Your task to perform on an android device: change the clock display to analog Image 0: 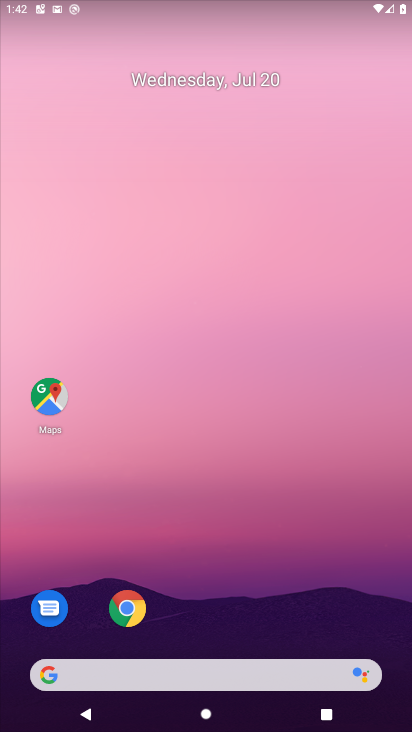
Step 0: drag from (235, 477) to (235, 299)
Your task to perform on an android device: change the clock display to analog Image 1: 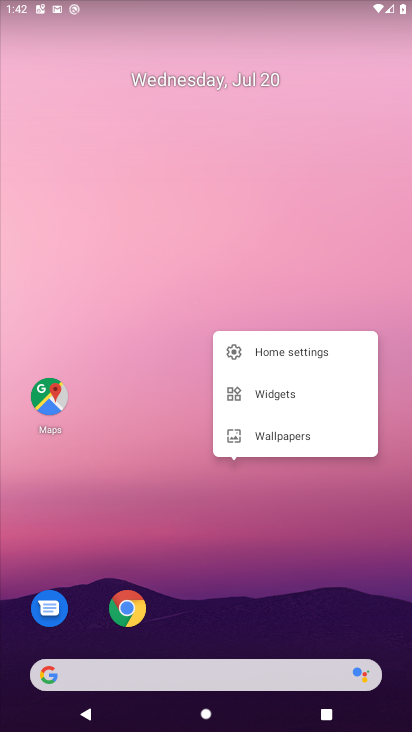
Step 1: click (170, 216)
Your task to perform on an android device: change the clock display to analog Image 2: 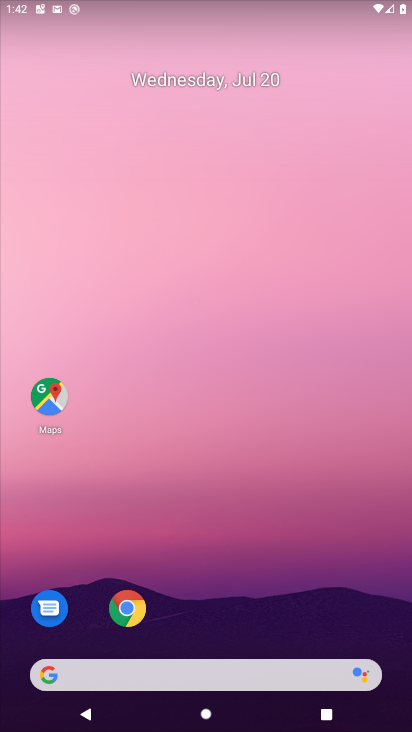
Step 2: drag from (223, 361) to (251, 125)
Your task to perform on an android device: change the clock display to analog Image 3: 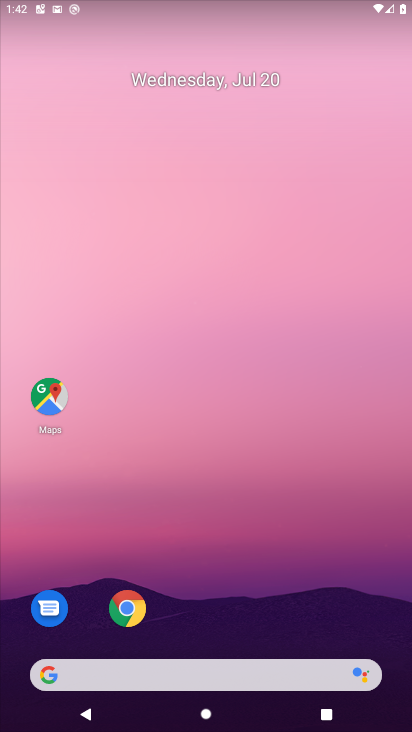
Step 3: drag from (234, 667) to (270, 90)
Your task to perform on an android device: change the clock display to analog Image 4: 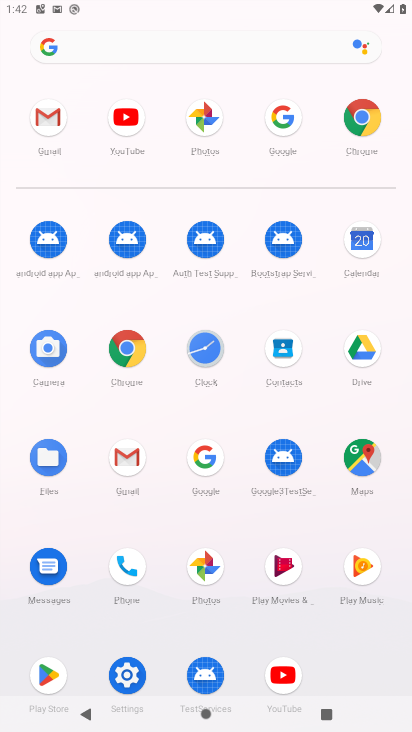
Step 4: click (211, 360)
Your task to perform on an android device: change the clock display to analog Image 5: 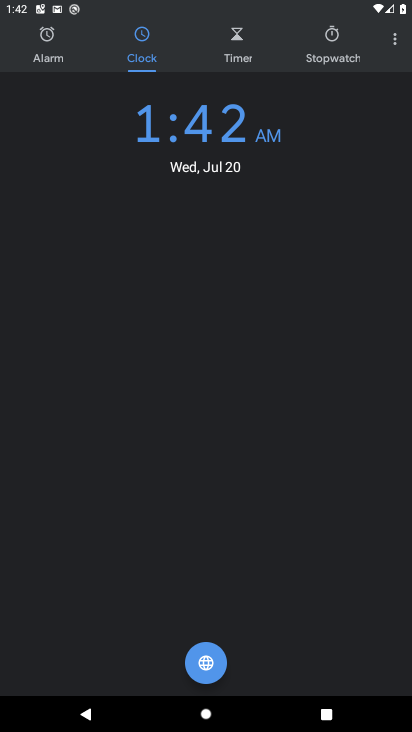
Step 5: click (394, 40)
Your task to perform on an android device: change the clock display to analog Image 6: 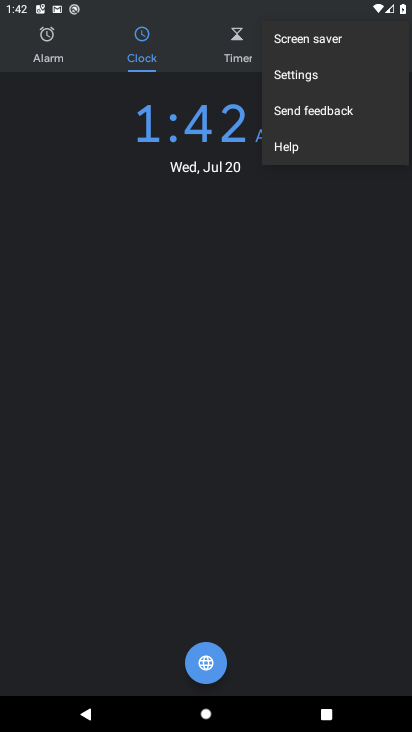
Step 6: click (319, 73)
Your task to perform on an android device: change the clock display to analog Image 7: 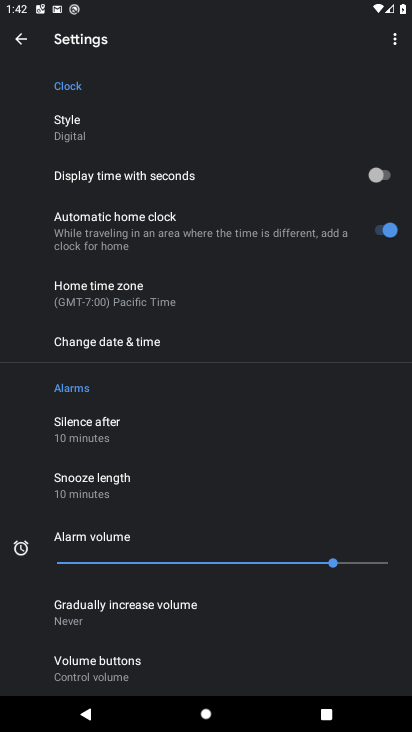
Step 7: click (86, 130)
Your task to perform on an android device: change the clock display to analog Image 8: 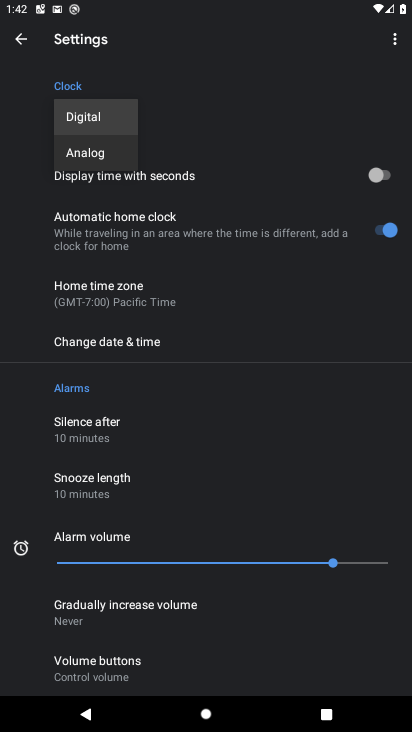
Step 8: click (94, 159)
Your task to perform on an android device: change the clock display to analog Image 9: 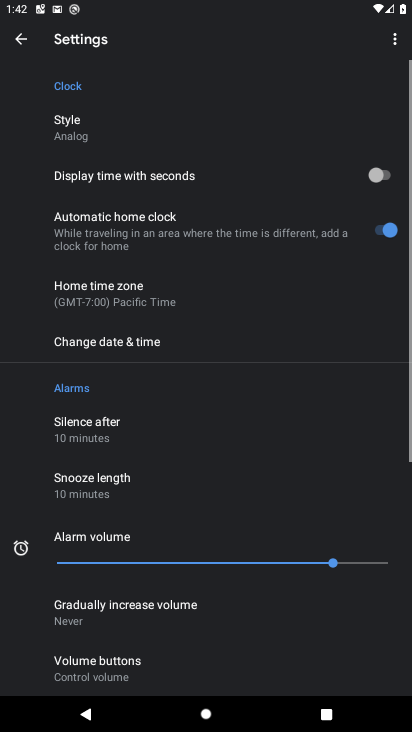
Step 9: task complete